Your task to perform on an android device: toggle priority inbox in the gmail app Image 0: 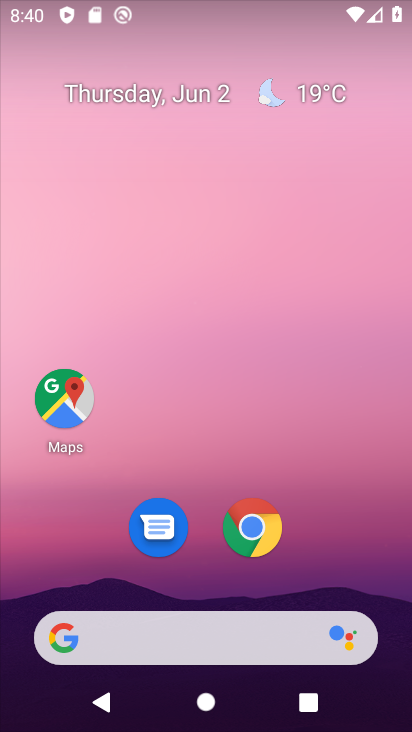
Step 0: drag from (307, 553) to (299, 176)
Your task to perform on an android device: toggle priority inbox in the gmail app Image 1: 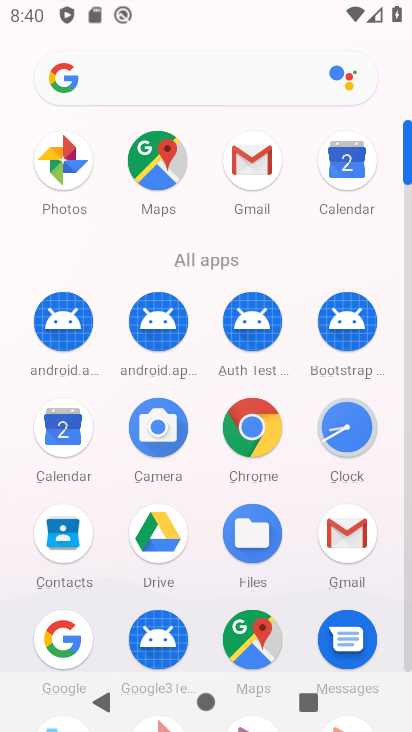
Step 1: click (266, 181)
Your task to perform on an android device: toggle priority inbox in the gmail app Image 2: 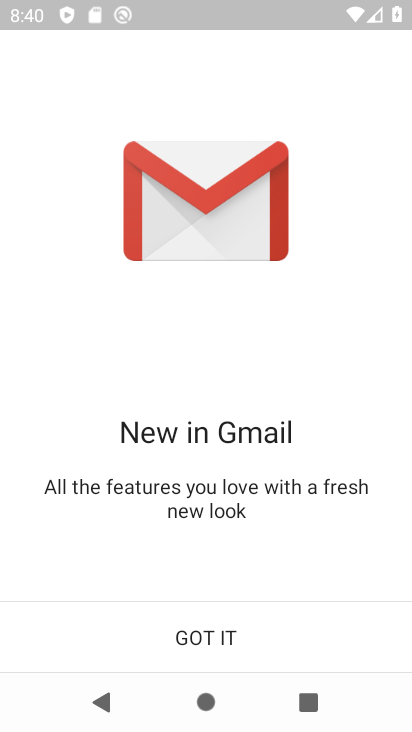
Step 2: click (210, 635)
Your task to perform on an android device: toggle priority inbox in the gmail app Image 3: 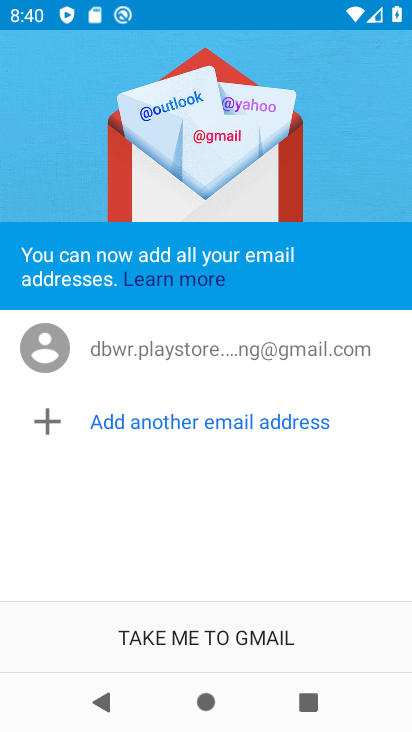
Step 3: click (215, 632)
Your task to perform on an android device: toggle priority inbox in the gmail app Image 4: 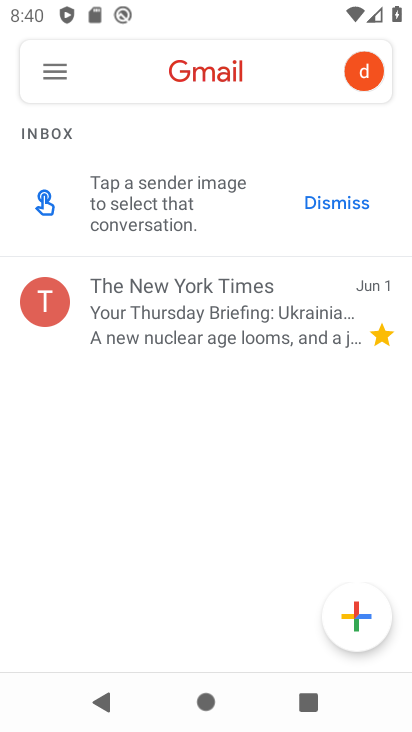
Step 4: click (50, 60)
Your task to perform on an android device: toggle priority inbox in the gmail app Image 5: 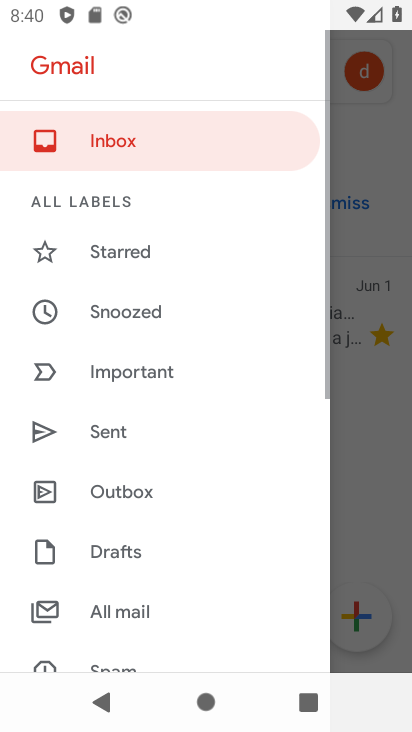
Step 5: drag from (188, 614) to (170, 177)
Your task to perform on an android device: toggle priority inbox in the gmail app Image 6: 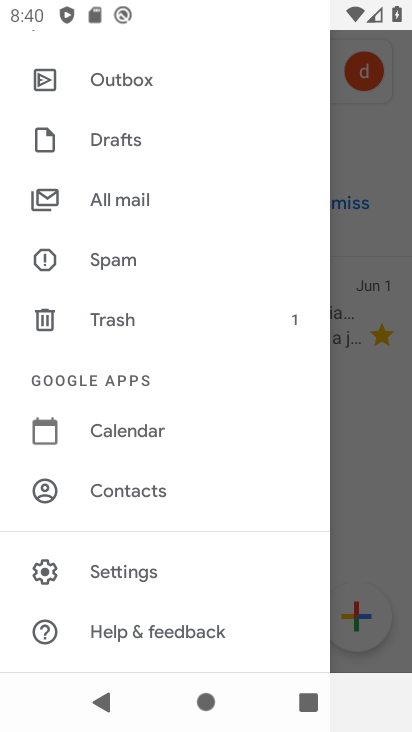
Step 6: click (114, 577)
Your task to perform on an android device: toggle priority inbox in the gmail app Image 7: 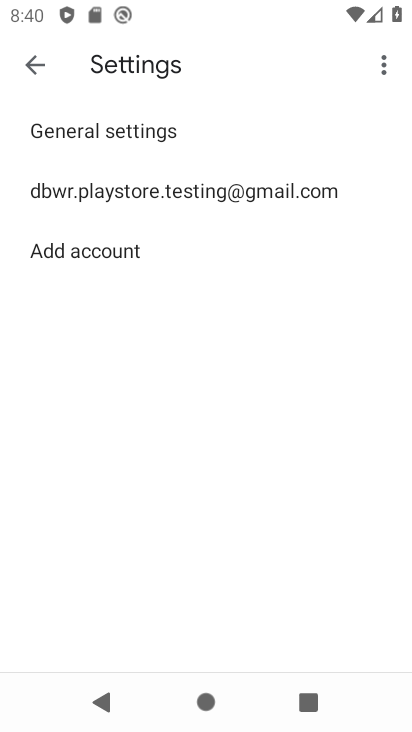
Step 7: click (208, 195)
Your task to perform on an android device: toggle priority inbox in the gmail app Image 8: 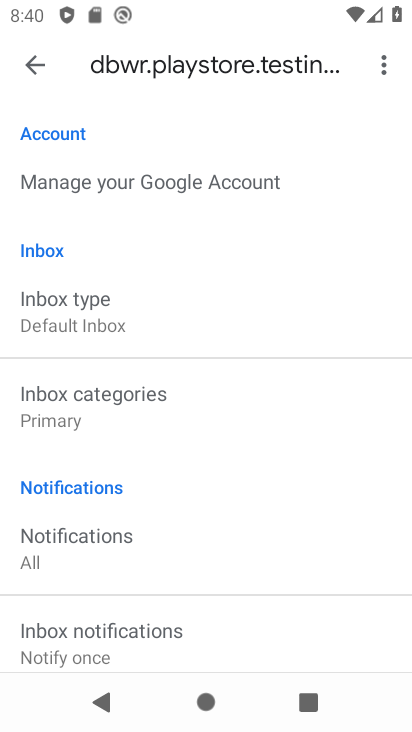
Step 8: click (96, 294)
Your task to perform on an android device: toggle priority inbox in the gmail app Image 9: 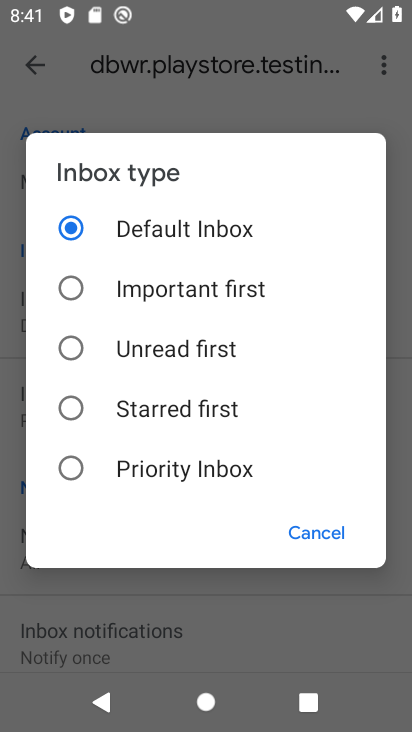
Step 9: click (148, 460)
Your task to perform on an android device: toggle priority inbox in the gmail app Image 10: 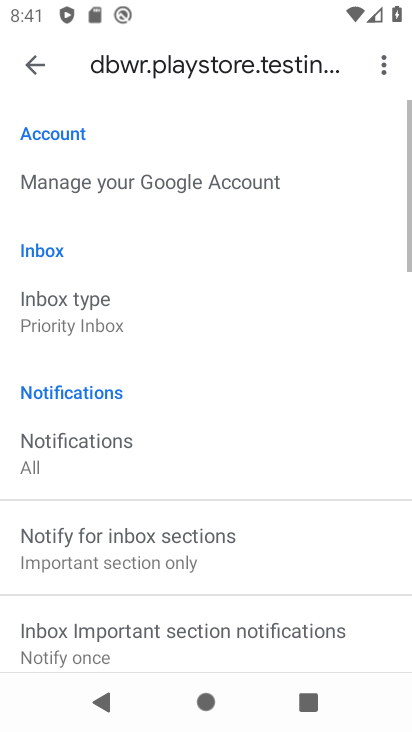
Step 10: task complete